Your task to perform on an android device: toggle airplane mode Image 0: 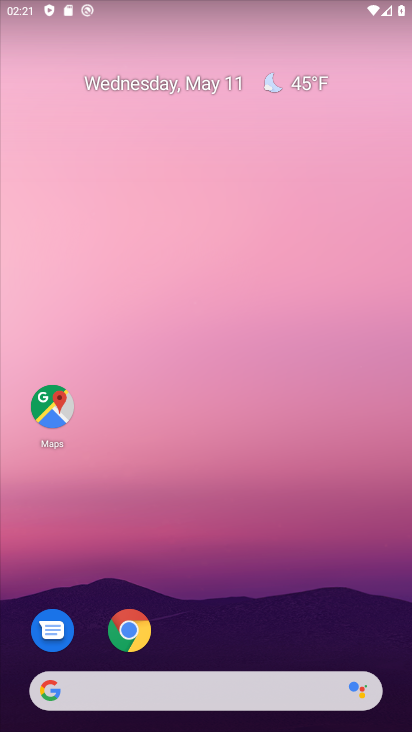
Step 0: drag from (220, 728) to (217, 198)
Your task to perform on an android device: toggle airplane mode Image 1: 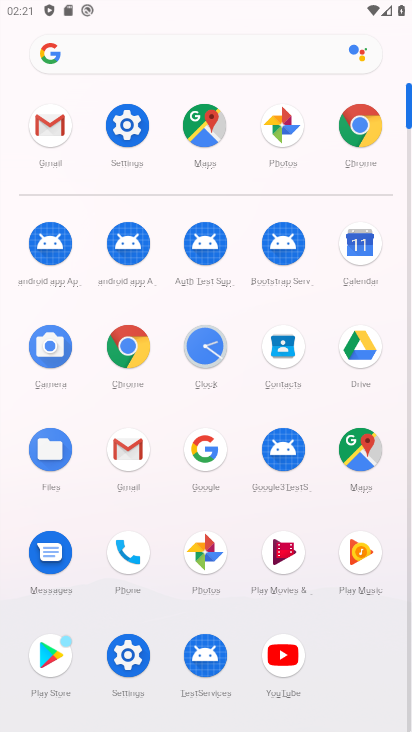
Step 1: click (133, 119)
Your task to perform on an android device: toggle airplane mode Image 2: 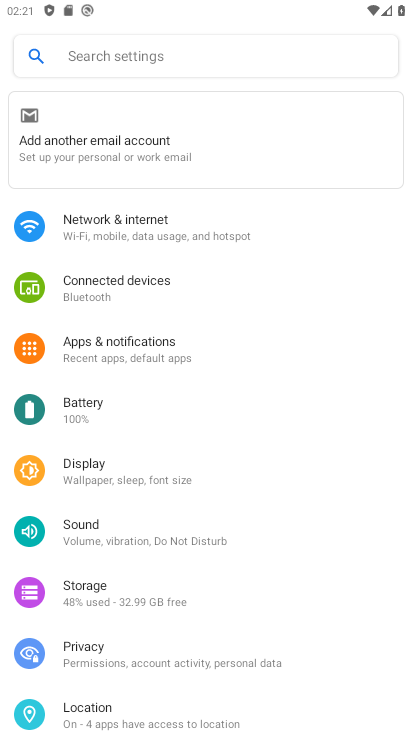
Step 2: click (114, 219)
Your task to perform on an android device: toggle airplane mode Image 3: 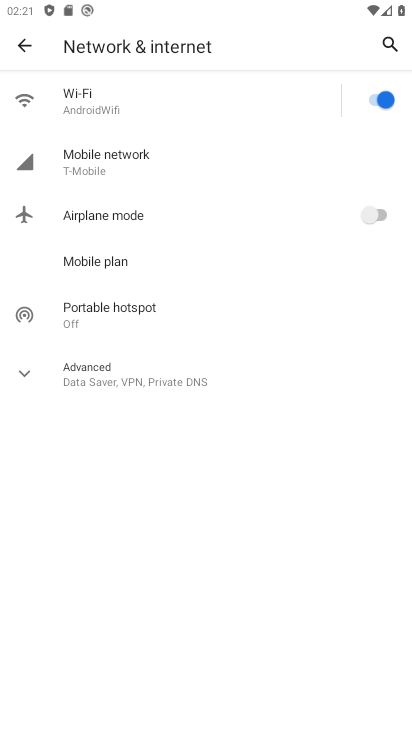
Step 3: click (380, 214)
Your task to perform on an android device: toggle airplane mode Image 4: 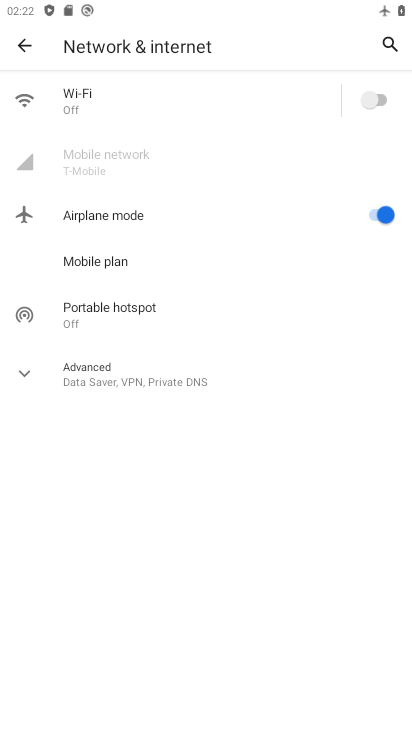
Step 4: task complete